Your task to perform on an android device: Go to location settings Image 0: 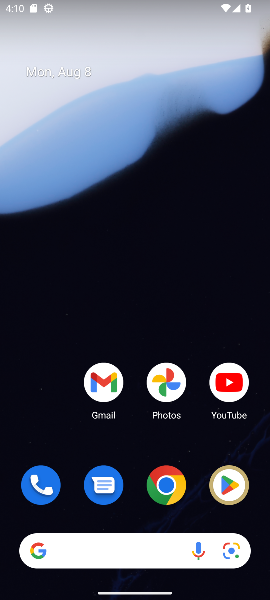
Step 0: click (128, 153)
Your task to perform on an android device: Go to location settings Image 1: 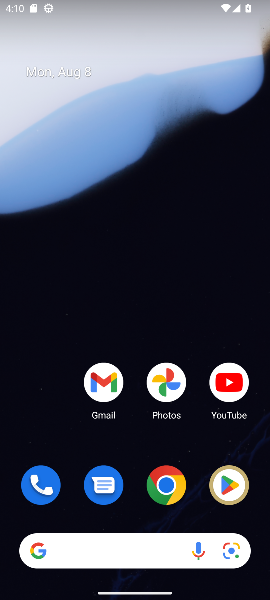
Step 1: drag from (148, 229) to (139, 144)
Your task to perform on an android device: Go to location settings Image 2: 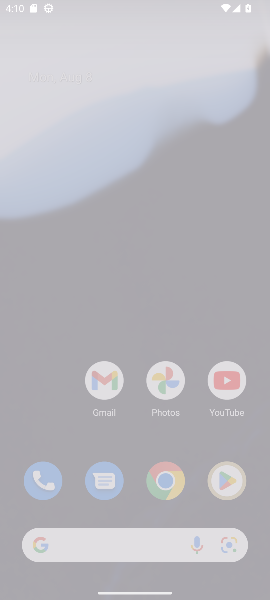
Step 2: drag from (114, 503) to (157, 199)
Your task to perform on an android device: Go to location settings Image 3: 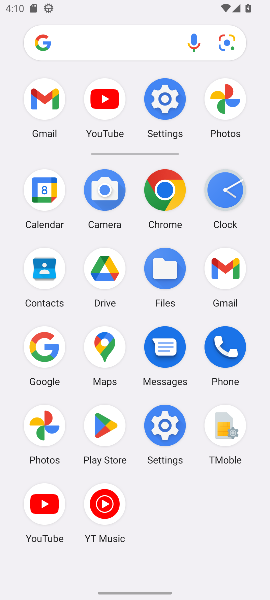
Step 3: drag from (160, 464) to (160, 351)
Your task to perform on an android device: Go to location settings Image 4: 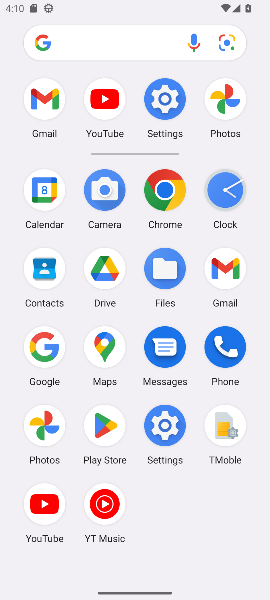
Step 4: click (168, 420)
Your task to perform on an android device: Go to location settings Image 5: 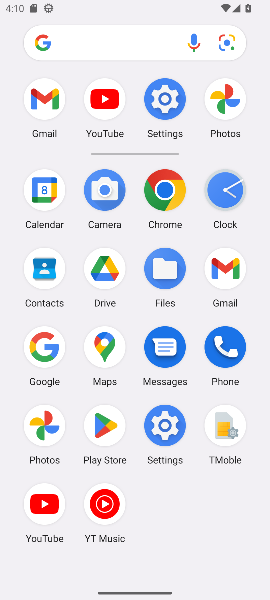
Step 5: click (168, 422)
Your task to perform on an android device: Go to location settings Image 6: 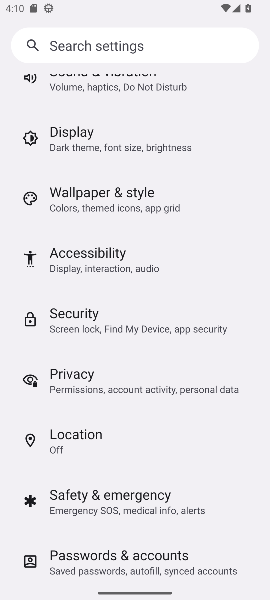
Step 6: click (165, 425)
Your task to perform on an android device: Go to location settings Image 7: 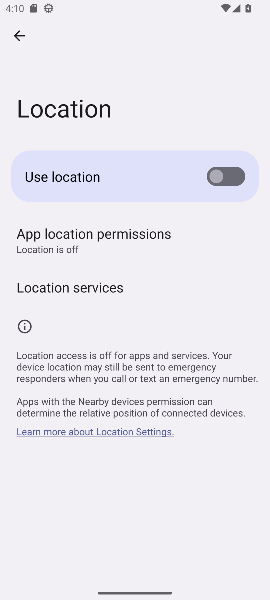
Step 7: drag from (99, 442) to (144, 127)
Your task to perform on an android device: Go to location settings Image 8: 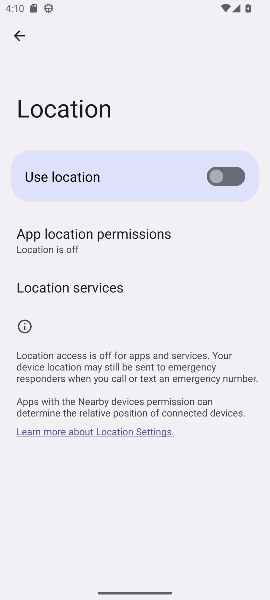
Step 8: click (101, 226)
Your task to perform on an android device: Go to location settings Image 9: 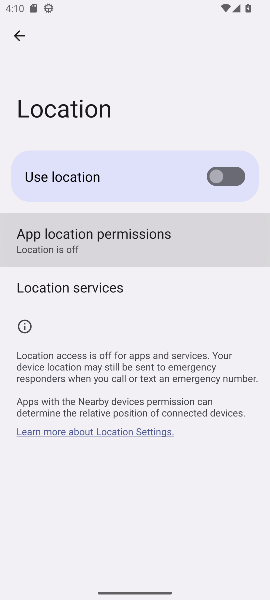
Step 9: task complete